Your task to perform on an android device: Open the Play Movies app and select the watchlist tab. Image 0: 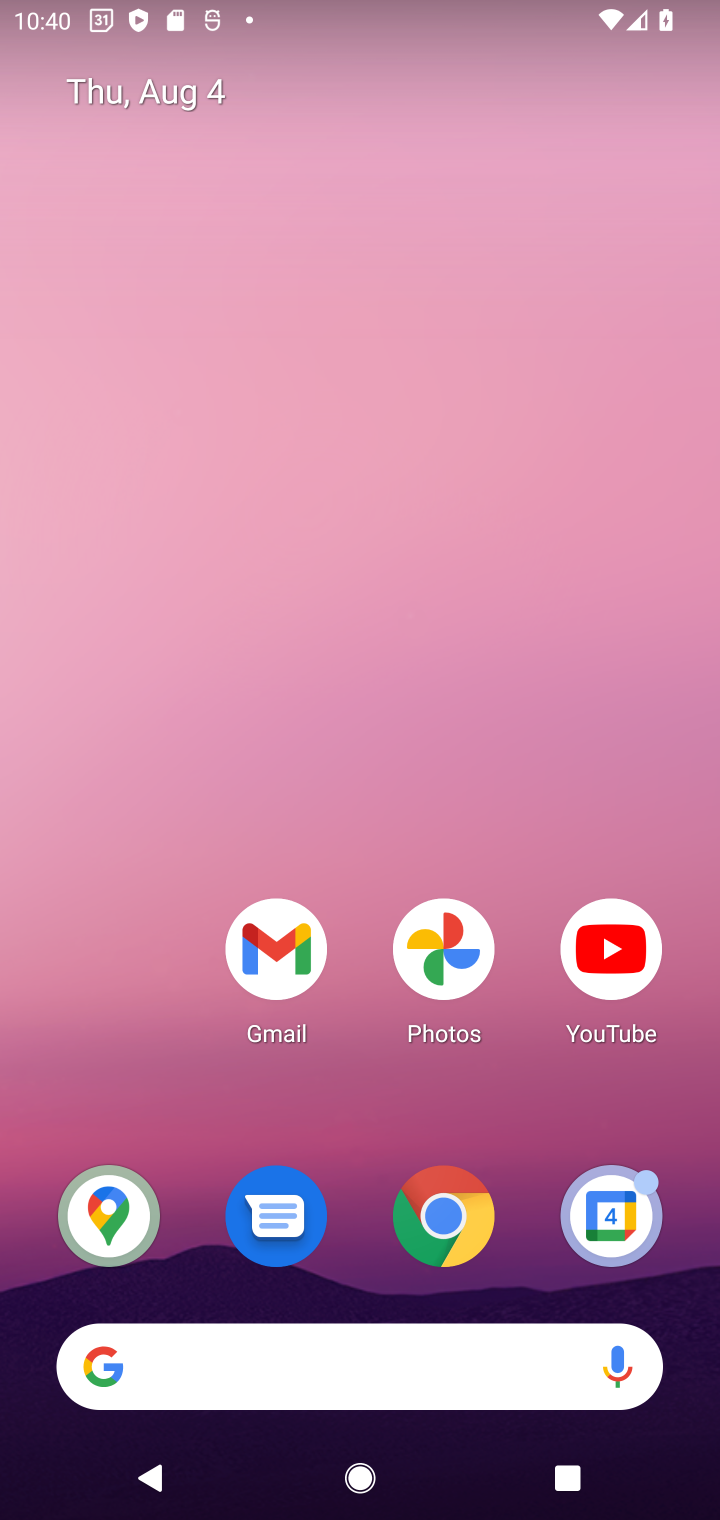
Step 0: drag from (328, 1333) to (273, 9)
Your task to perform on an android device: Open the Play Movies app and select the watchlist tab. Image 1: 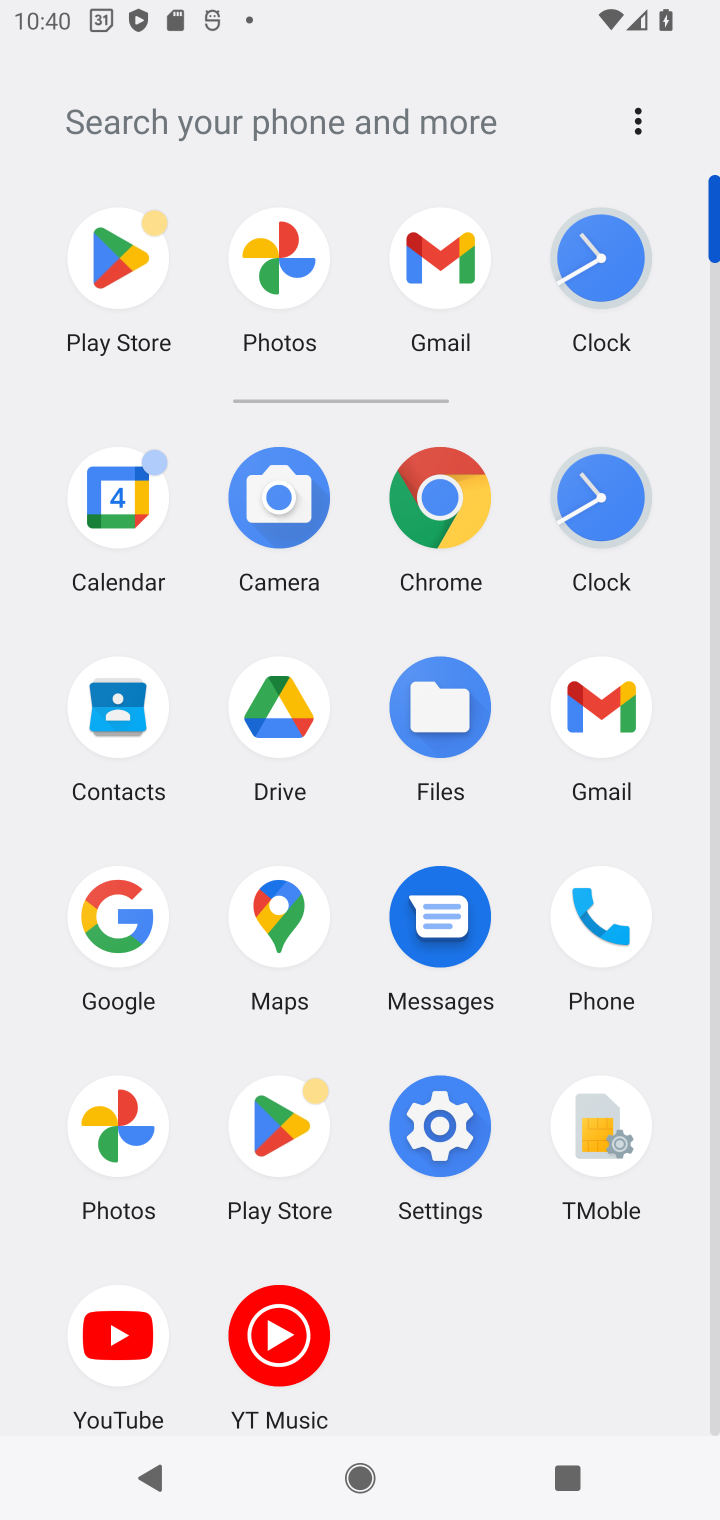
Step 1: drag from (390, 1313) to (380, 852)
Your task to perform on an android device: Open the Play Movies app and select the watchlist tab. Image 2: 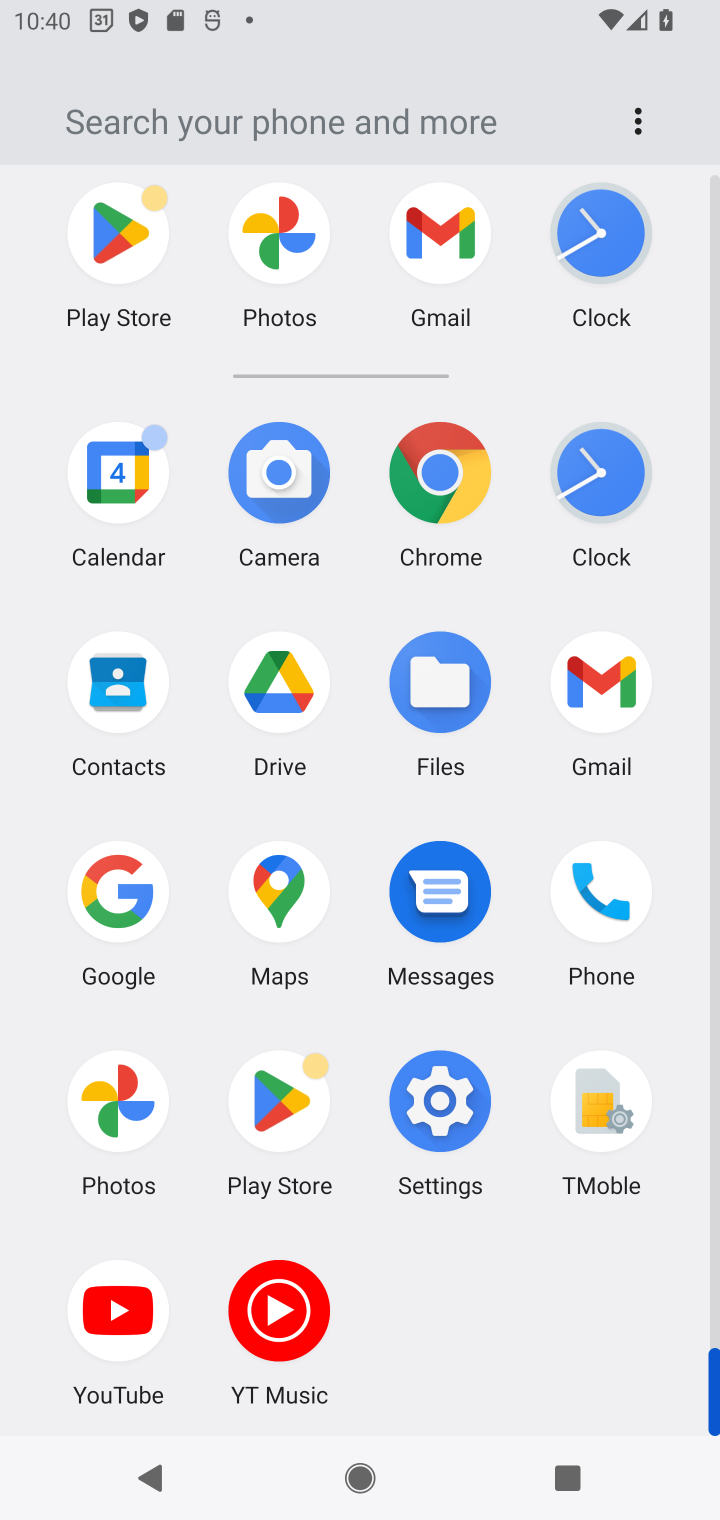
Step 2: drag from (336, 417) to (369, 998)
Your task to perform on an android device: Open the Play Movies app and select the watchlist tab. Image 3: 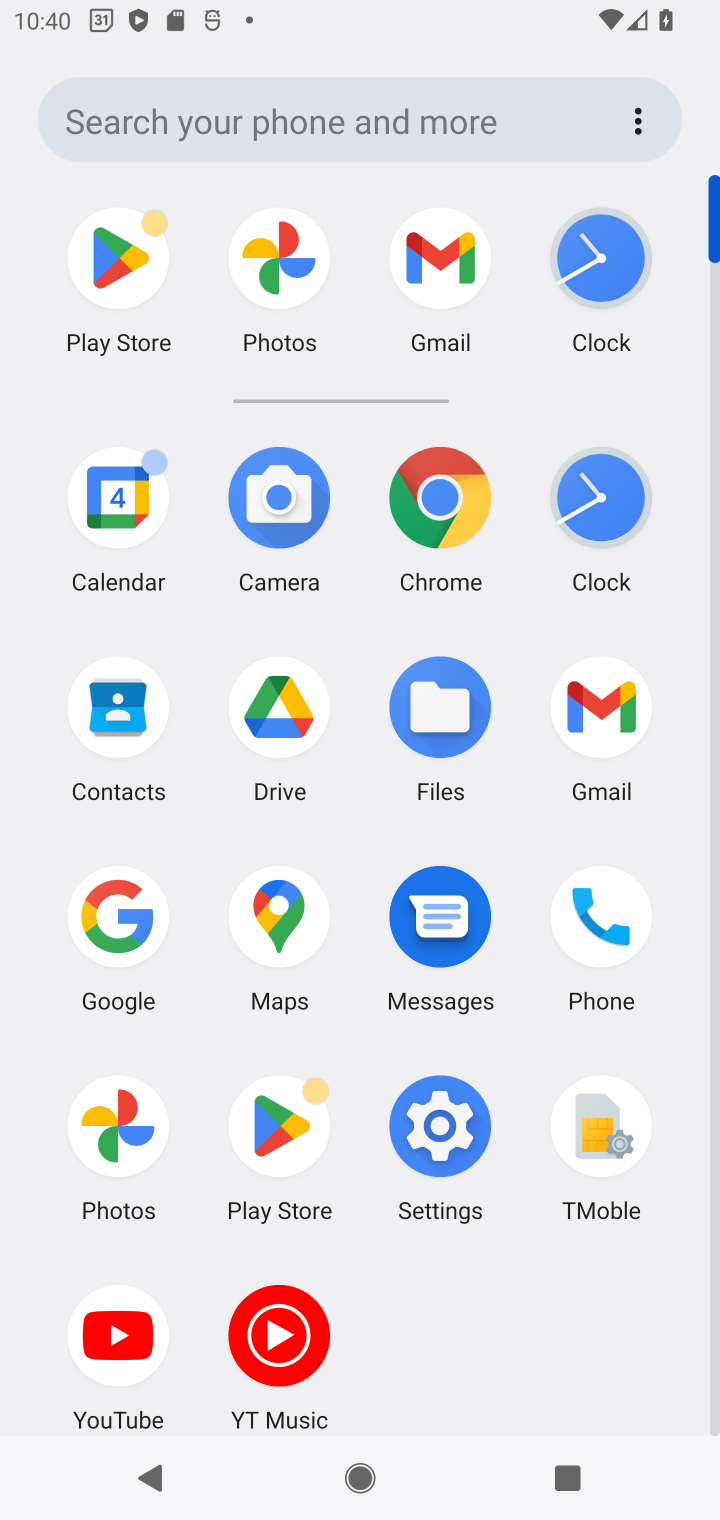
Step 3: click (369, 107)
Your task to perform on an android device: Open the Play Movies app and select the watchlist tab. Image 4: 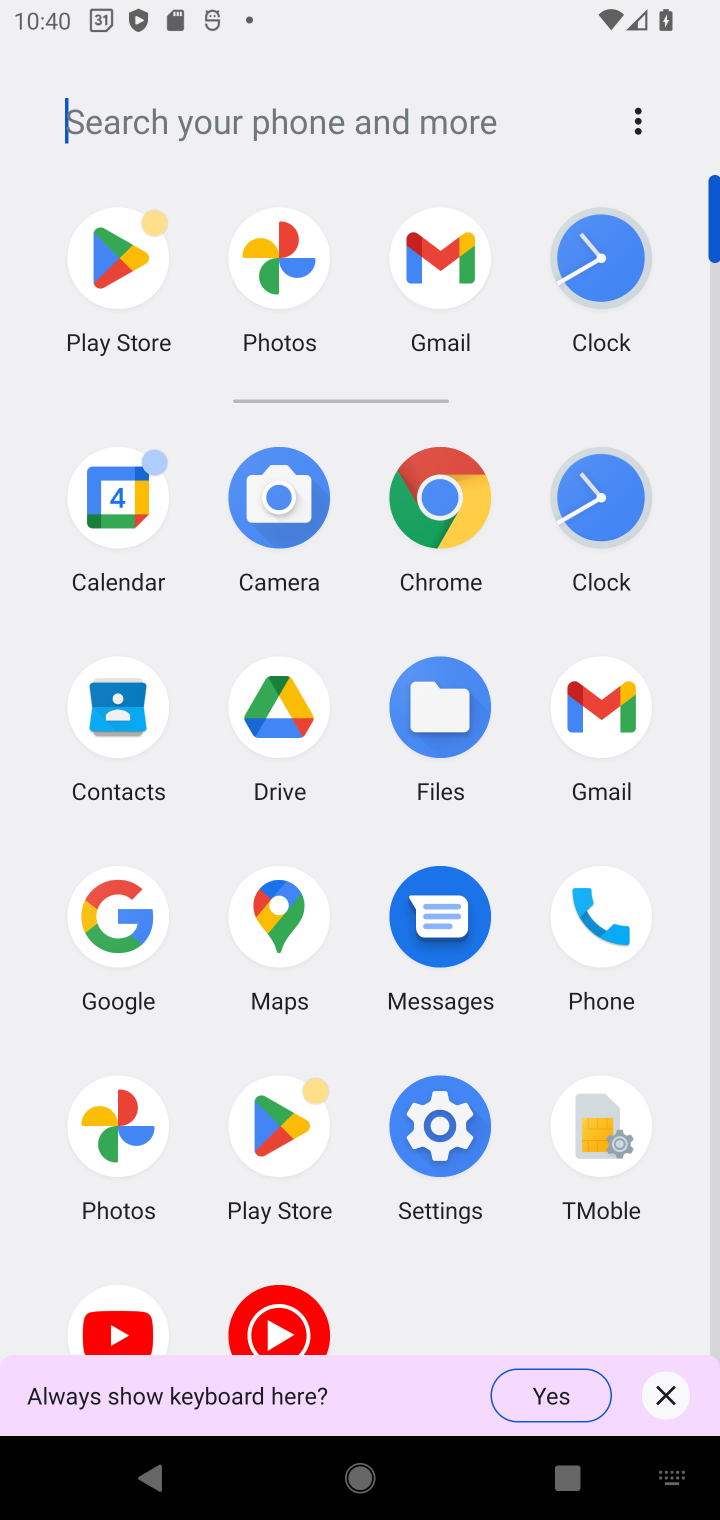
Step 4: click (384, 115)
Your task to perform on an android device: Open the Play Movies app and select the watchlist tab. Image 5: 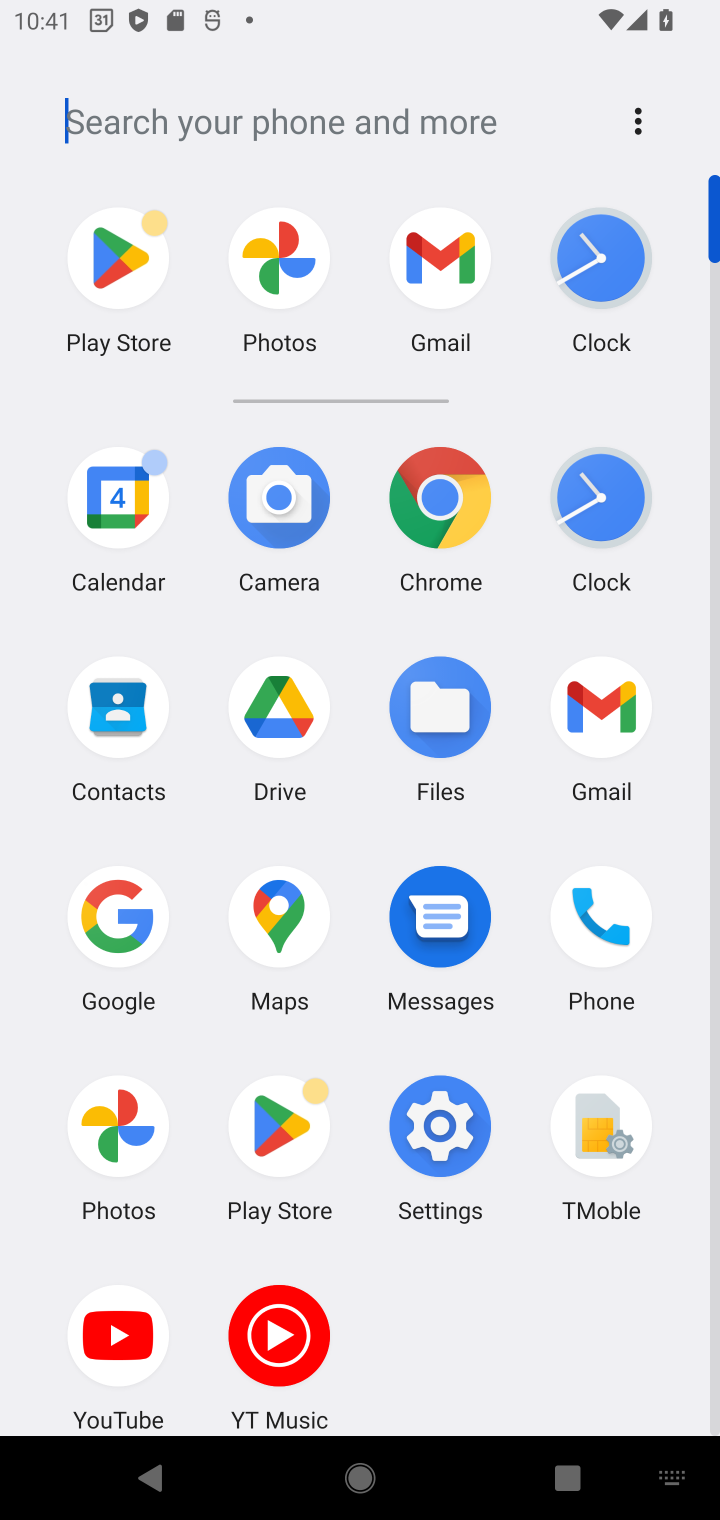
Step 5: click (266, 1340)
Your task to perform on an android device: Open the Play Movies app and select the watchlist tab. Image 6: 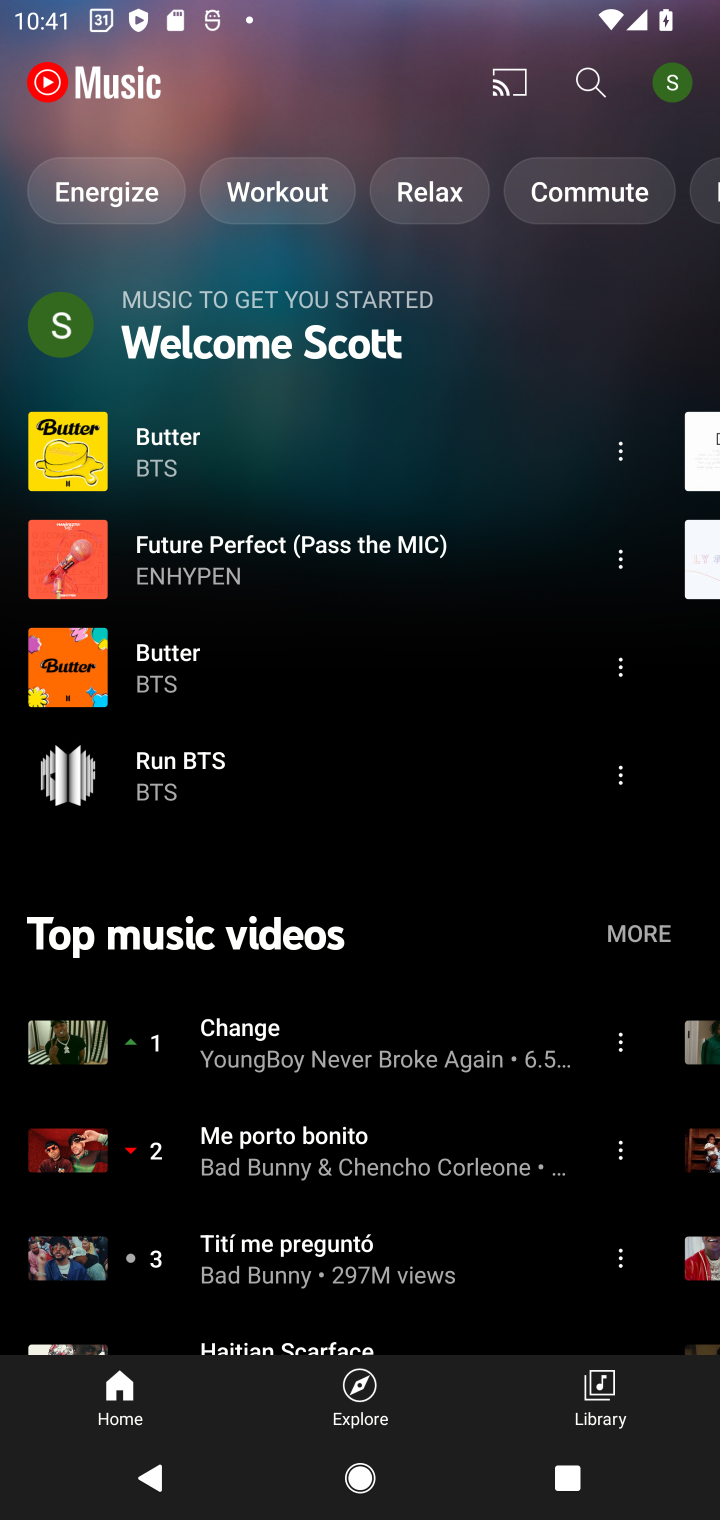
Step 6: task complete